Your task to perform on an android device: toggle data saver in the chrome app Image 0: 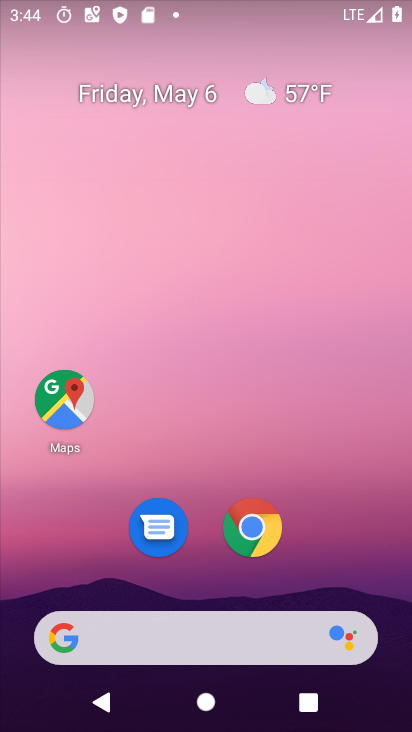
Step 0: click (232, 528)
Your task to perform on an android device: toggle data saver in the chrome app Image 1: 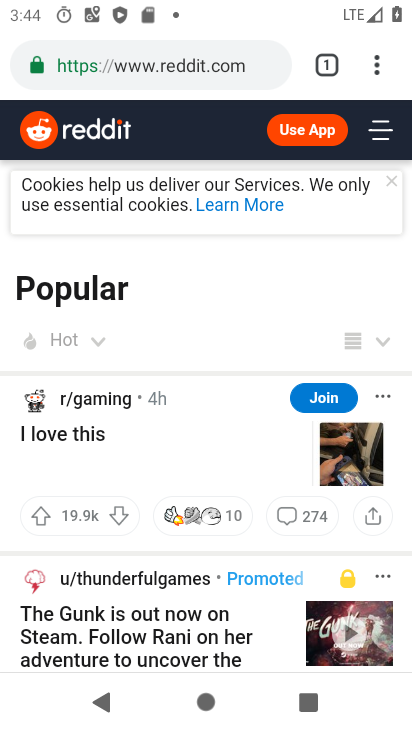
Step 1: click (377, 73)
Your task to perform on an android device: toggle data saver in the chrome app Image 2: 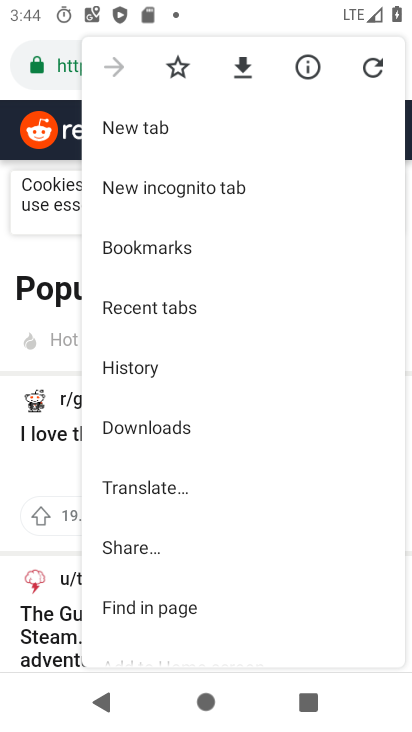
Step 2: drag from (197, 554) to (188, 121)
Your task to perform on an android device: toggle data saver in the chrome app Image 3: 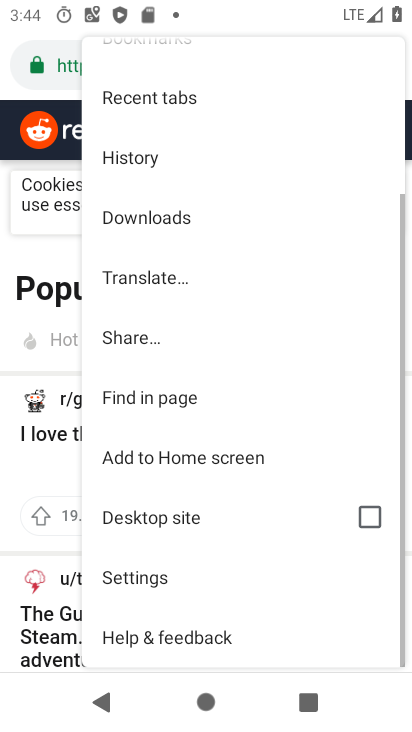
Step 3: click (156, 584)
Your task to perform on an android device: toggle data saver in the chrome app Image 4: 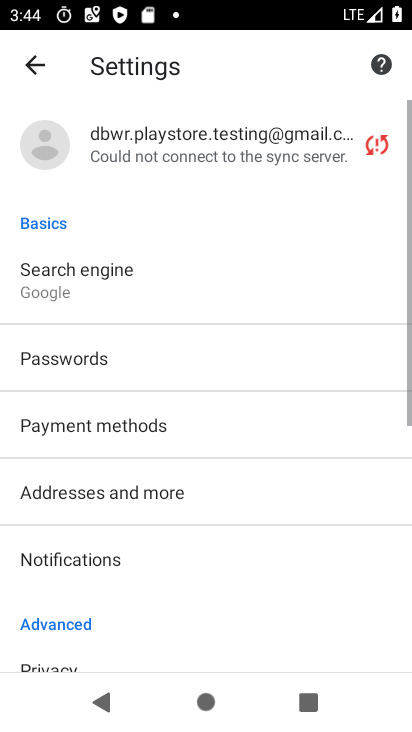
Step 4: drag from (152, 606) to (166, 172)
Your task to perform on an android device: toggle data saver in the chrome app Image 5: 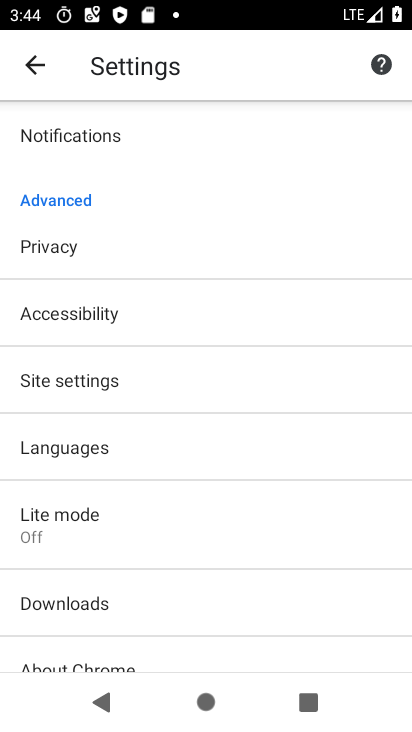
Step 5: click (106, 384)
Your task to perform on an android device: toggle data saver in the chrome app Image 6: 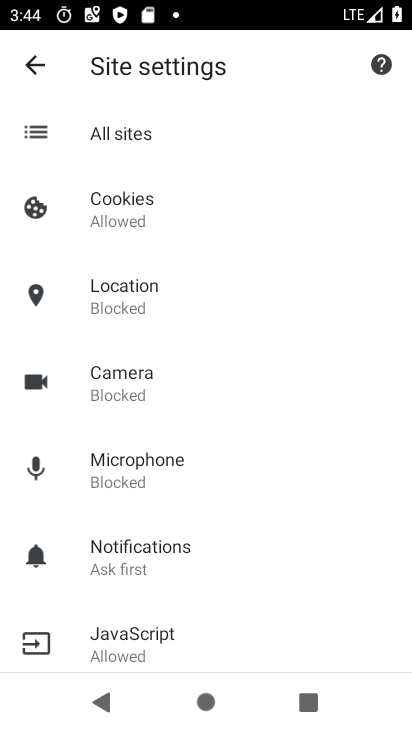
Step 6: press back button
Your task to perform on an android device: toggle data saver in the chrome app Image 7: 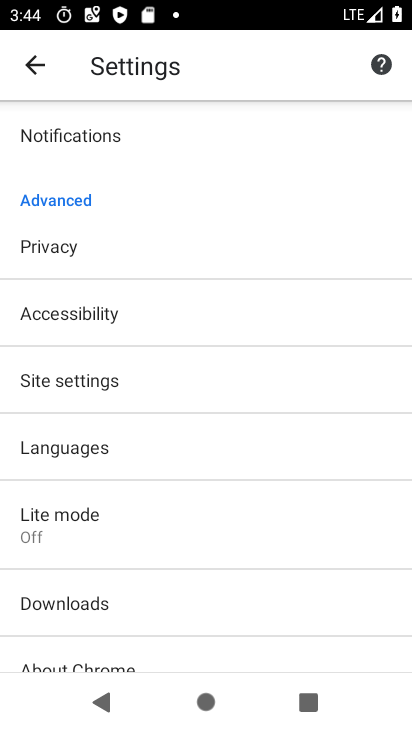
Step 7: click (103, 530)
Your task to perform on an android device: toggle data saver in the chrome app Image 8: 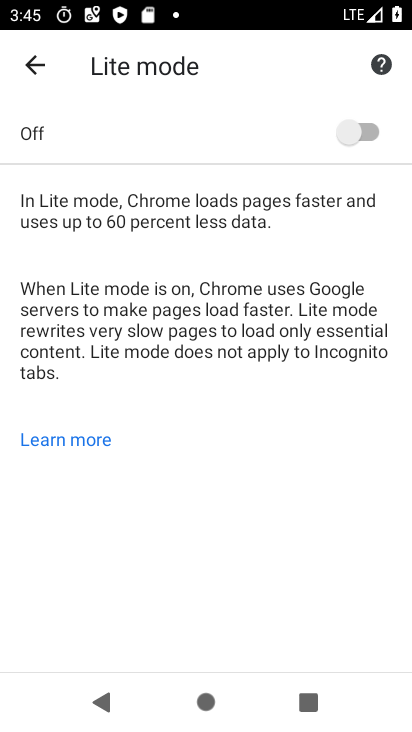
Step 8: click (381, 136)
Your task to perform on an android device: toggle data saver in the chrome app Image 9: 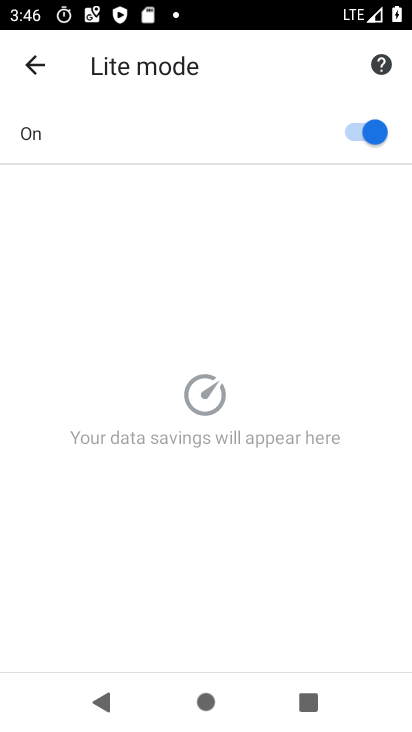
Step 9: task complete